Your task to perform on an android device: open app "ZOOM Cloud Meetings" Image 0: 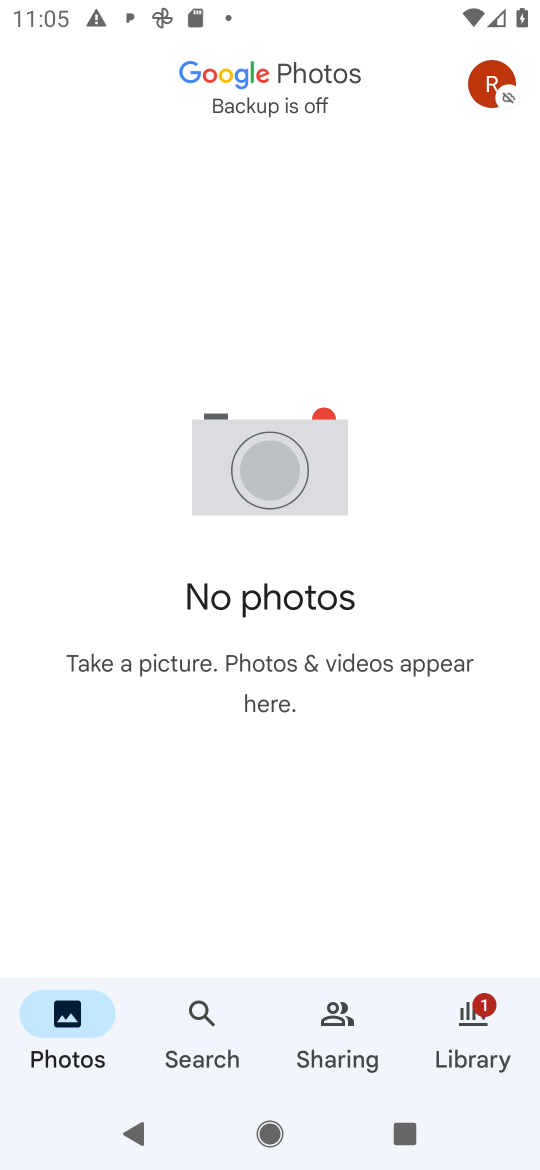
Step 0: press home button
Your task to perform on an android device: open app "ZOOM Cloud Meetings" Image 1: 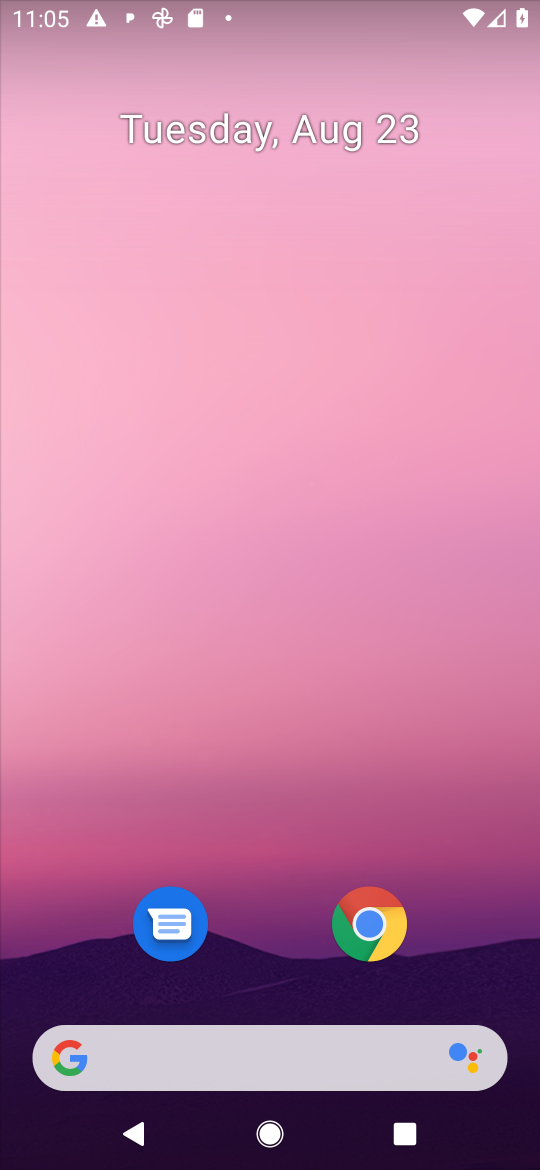
Step 1: drag from (457, 970) to (479, 195)
Your task to perform on an android device: open app "ZOOM Cloud Meetings" Image 2: 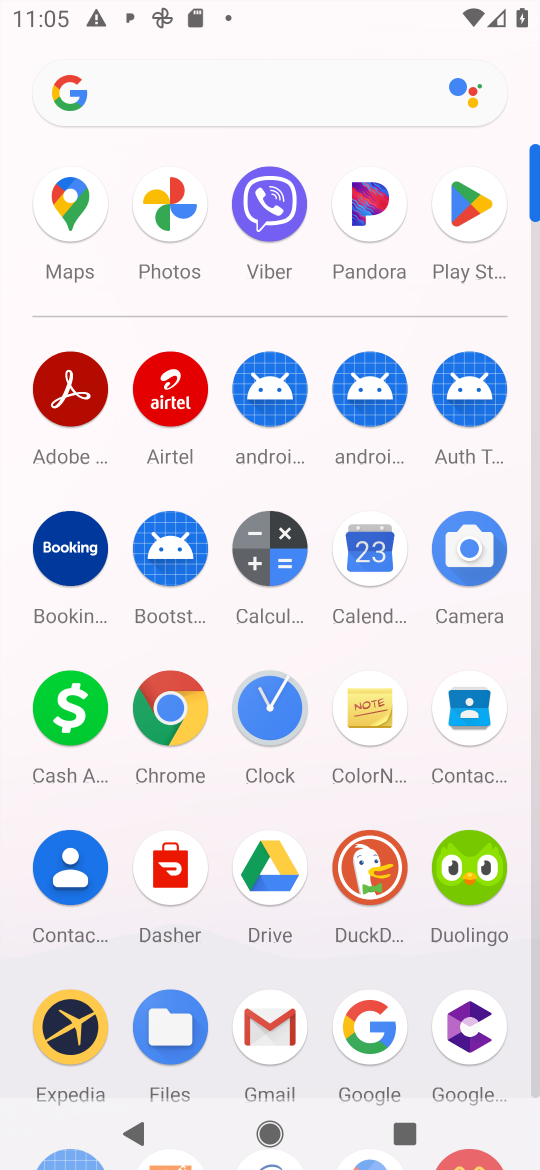
Step 2: click (474, 209)
Your task to perform on an android device: open app "ZOOM Cloud Meetings" Image 3: 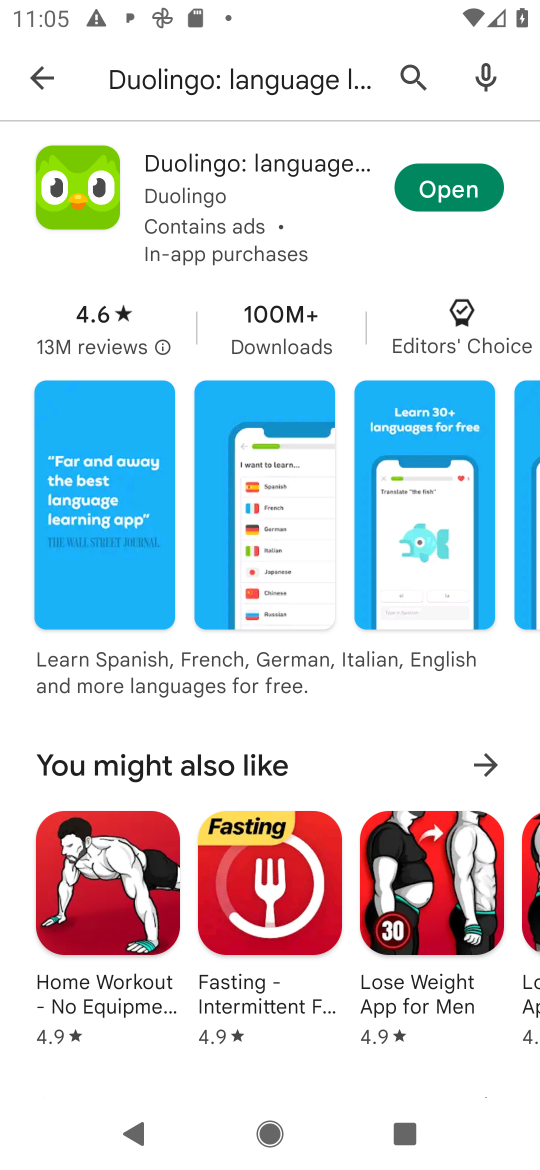
Step 3: press back button
Your task to perform on an android device: open app "ZOOM Cloud Meetings" Image 4: 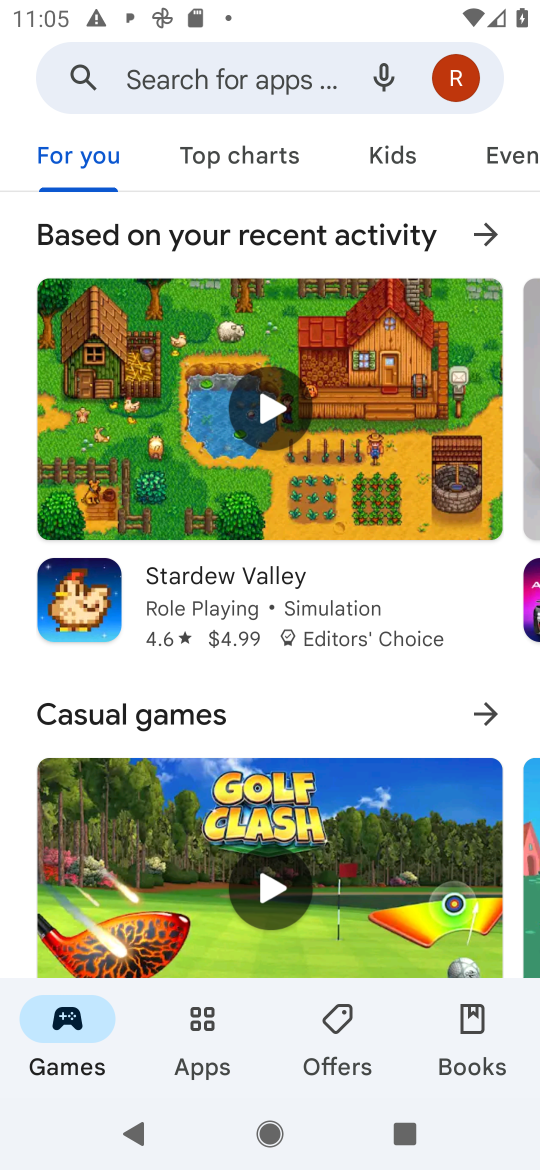
Step 4: click (209, 90)
Your task to perform on an android device: open app "ZOOM Cloud Meetings" Image 5: 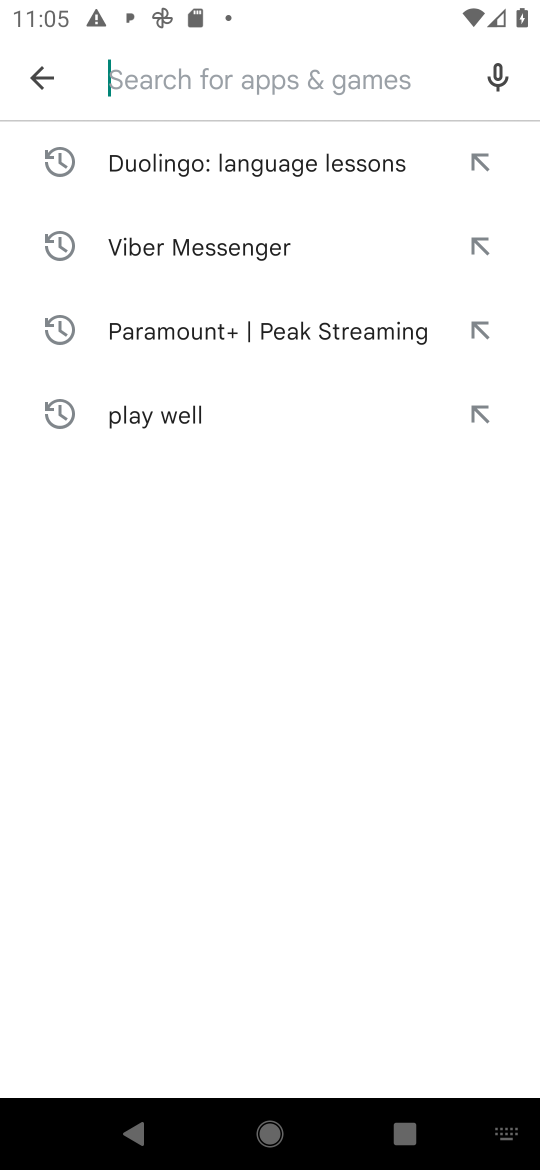
Step 5: type "ZOOM Cloud Meetings"
Your task to perform on an android device: open app "ZOOM Cloud Meetings" Image 6: 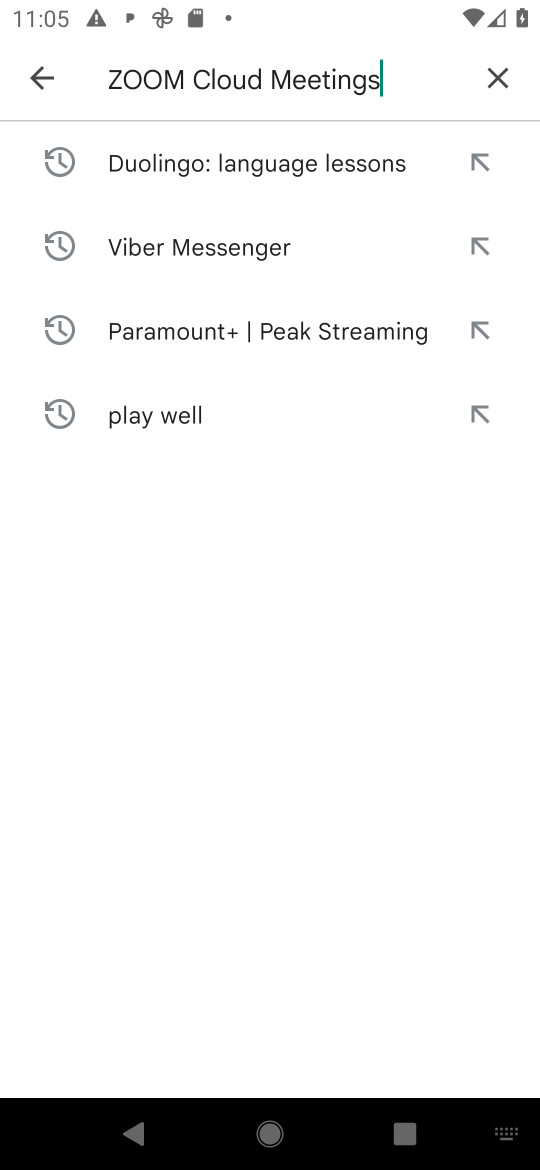
Step 6: press enter
Your task to perform on an android device: open app "ZOOM Cloud Meetings" Image 7: 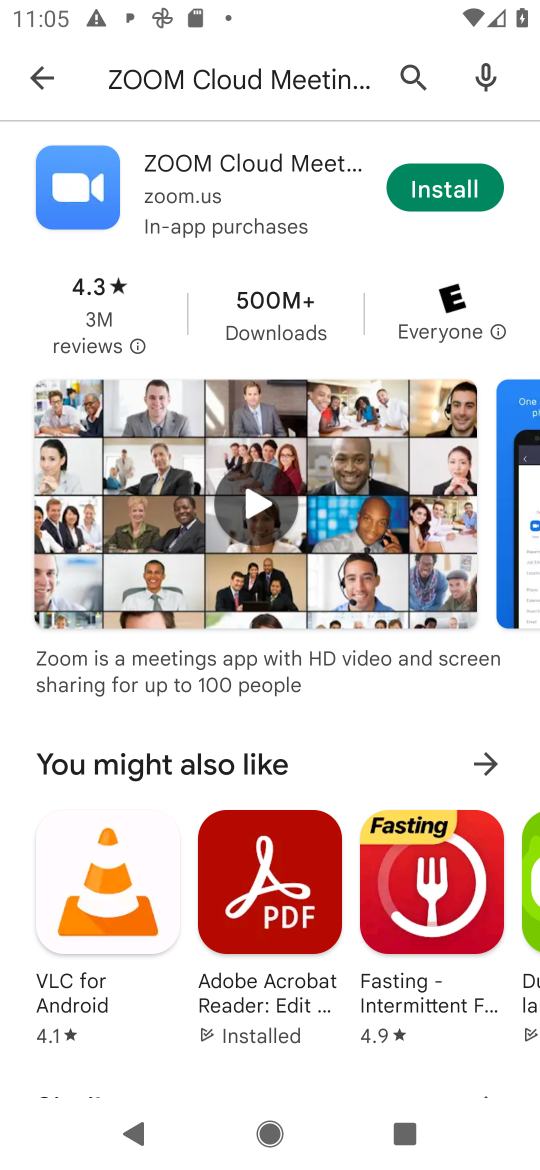
Step 7: task complete